Your task to perform on an android device: Open location settings Image 0: 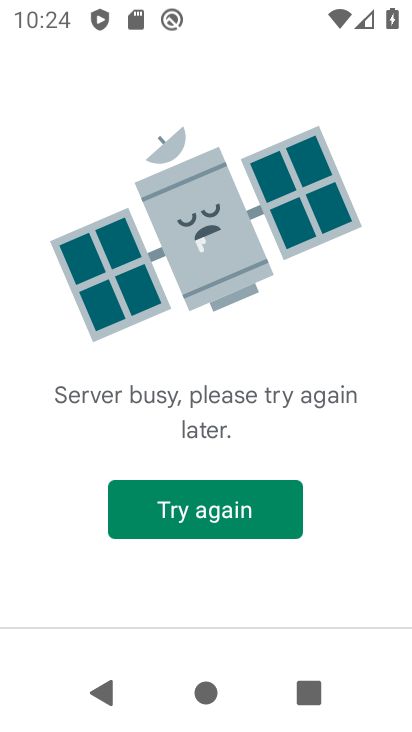
Step 0: drag from (229, 565) to (263, 296)
Your task to perform on an android device: Open location settings Image 1: 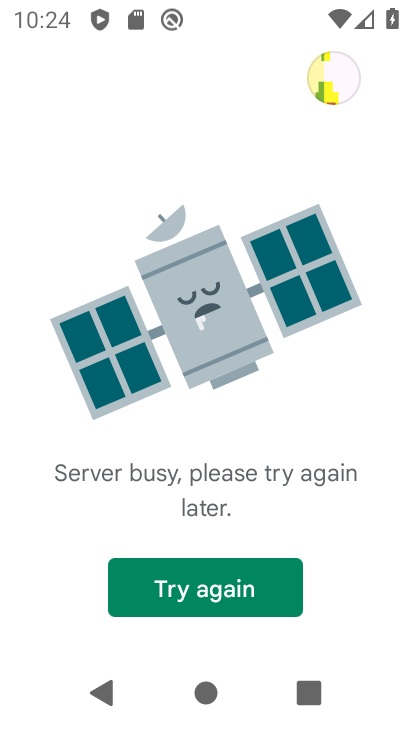
Step 1: press home button
Your task to perform on an android device: Open location settings Image 2: 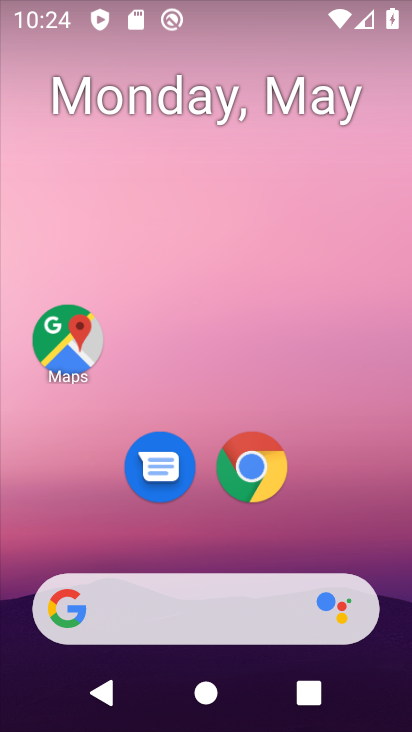
Step 2: drag from (185, 542) to (184, 182)
Your task to perform on an android device: Open location settings Image 3: 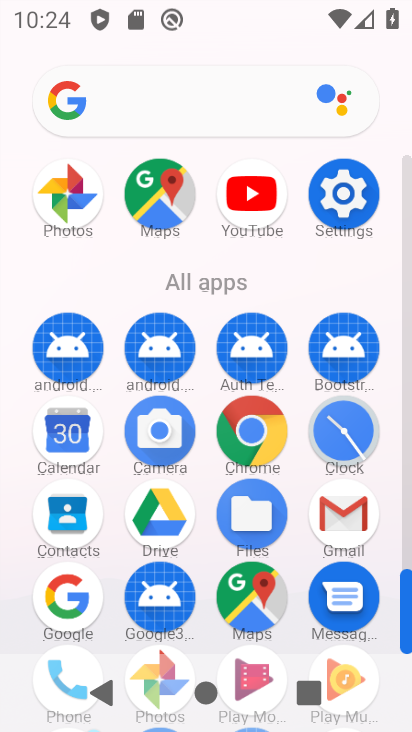
Step 3: click (343, 201)
Your task to perform on an android device: Open location settings Image 4: 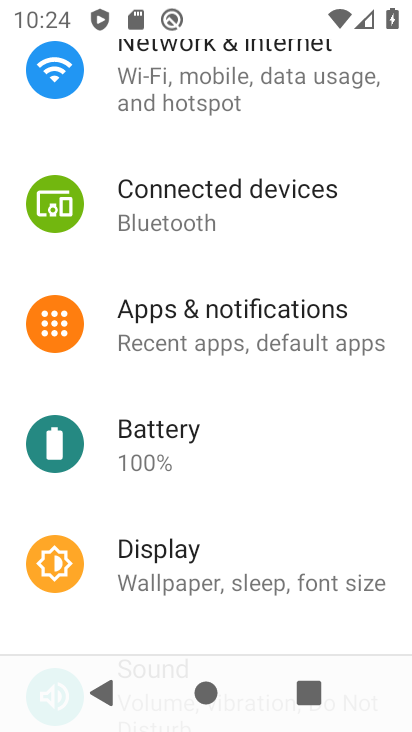
Step 4: drag from (246, 624) to (264, 204)
Your task to perform on an android device: Open location settings Image 5: 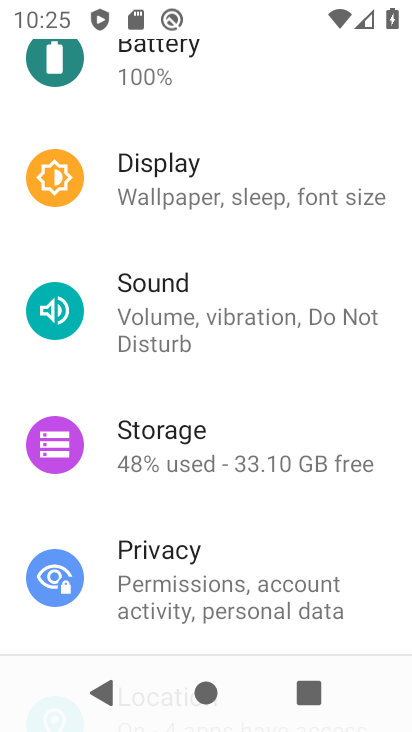
Step 5: drag from (166, 581) to (207, 185)
Your task to perform on an android device: Open location settings Image 6: 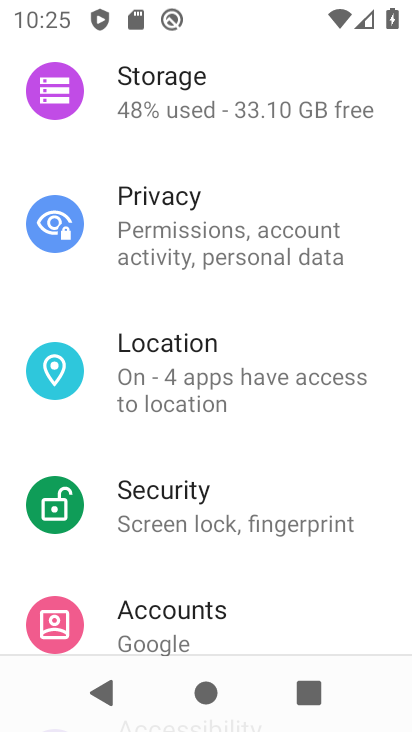
Step 6: click (202, 385)
Your task to perform on an android device: Open location settings Image 7: 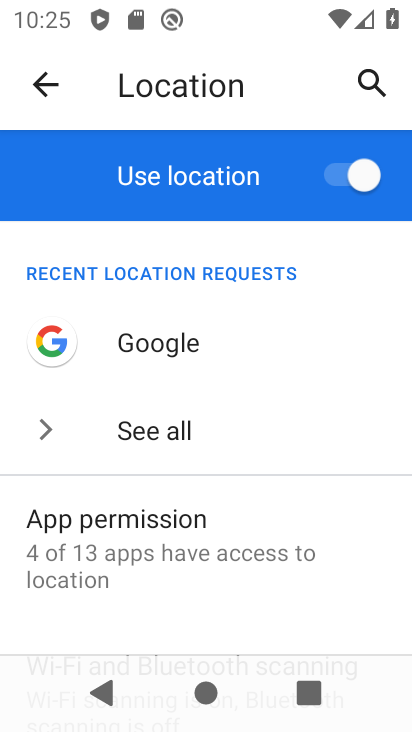
Step 7: drag from (266, 605) to (266, 277)
Your task to perform on an android device: Open location settings Image 8: 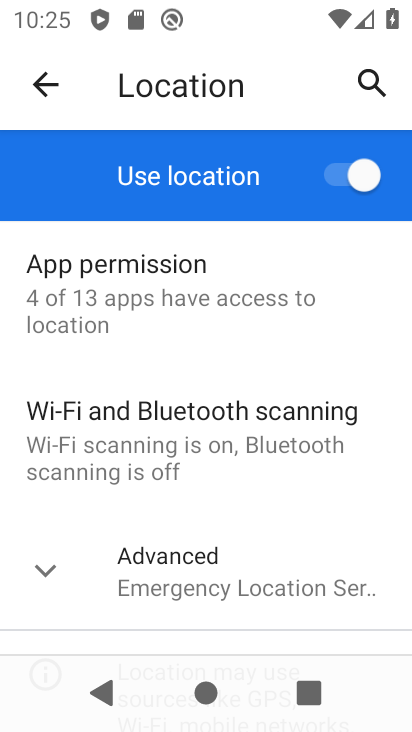
Step 8: click (211, 562)
Your task to perform on an android device: Open location settings Image 9: 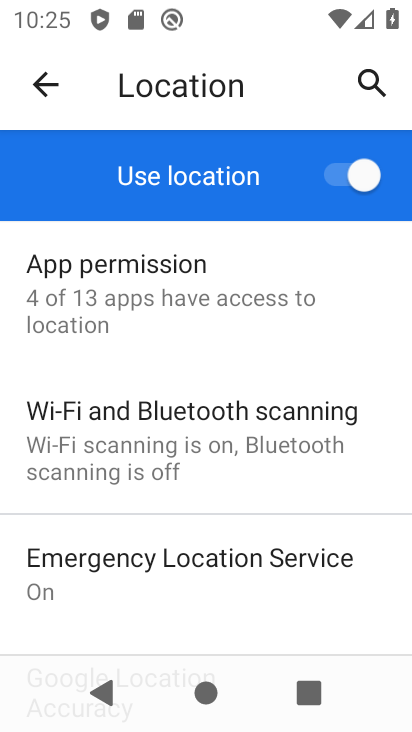
Step 9: task complete